Your task to perform on an android device: Open calendar and show me the third week of next month Image 0: 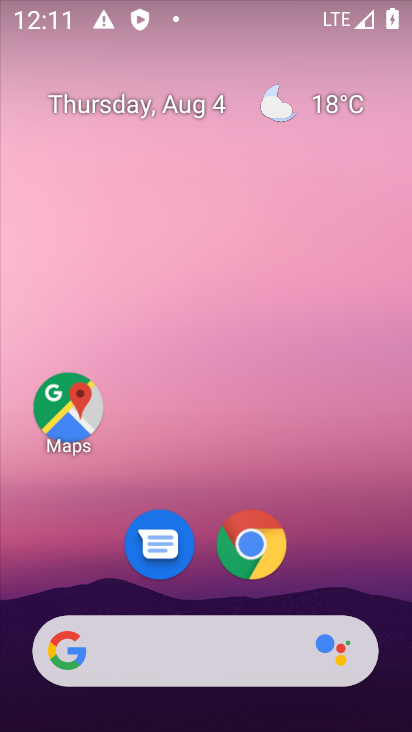
Step 0: drag from (389, 701) to (316, 177)
Your task to perform on an android device: Open calendar and show me the third week of next month Image 1: 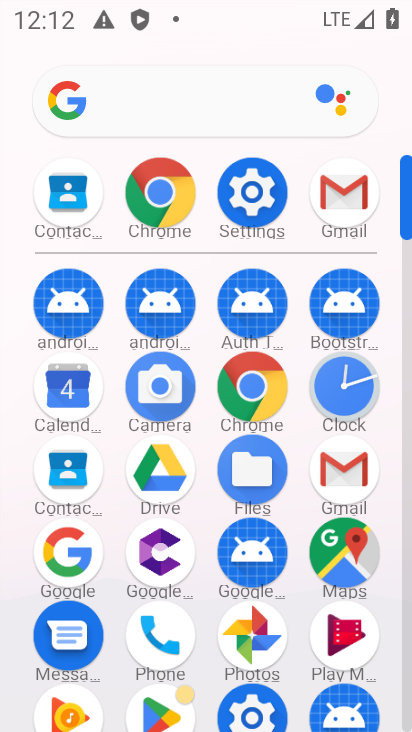
Step 1: click (72, 405)
Your task to perform on an android device: Open calendar and show me the third week of next month Image 2: 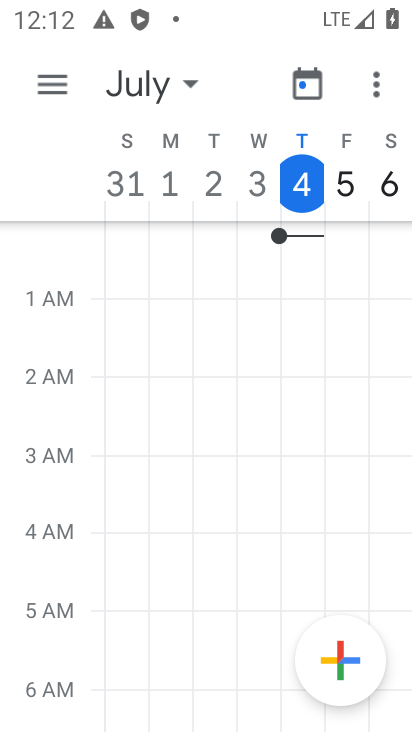
Step 2: click (197, 83)
Your task to perform on an android device: Open calendar and show me the third week of next month Image 3: 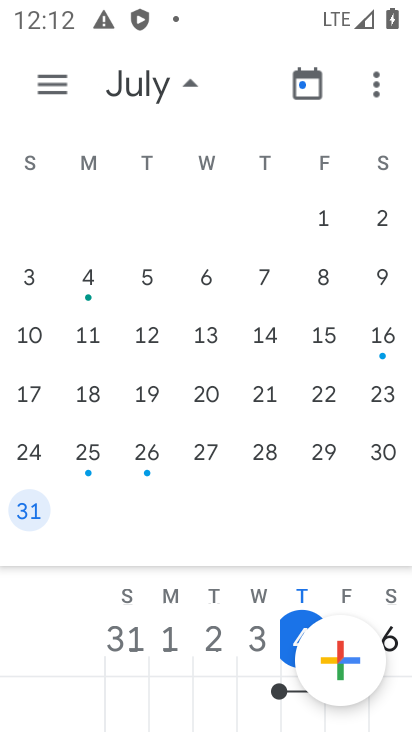
Step 3: drag from (389, 271) to (72, 293)
Your task to perform on an android device: Open calendar and show me the third week of next month Image 4: 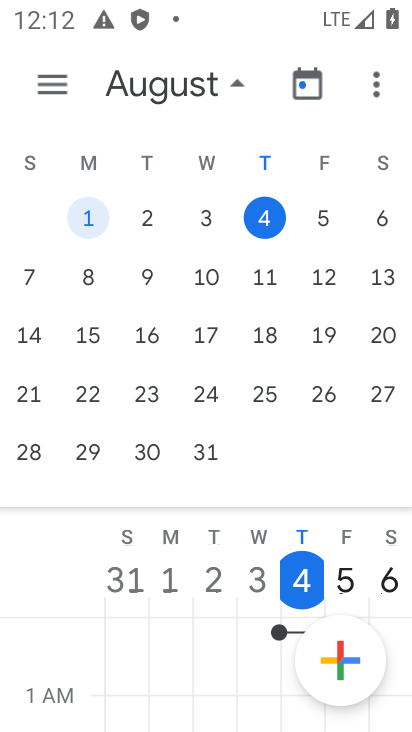
Step 4: drag from (397, 326) to (59, 328)
Your task to perform on an android device: Open calendar and show me the third week of next month Image 5: 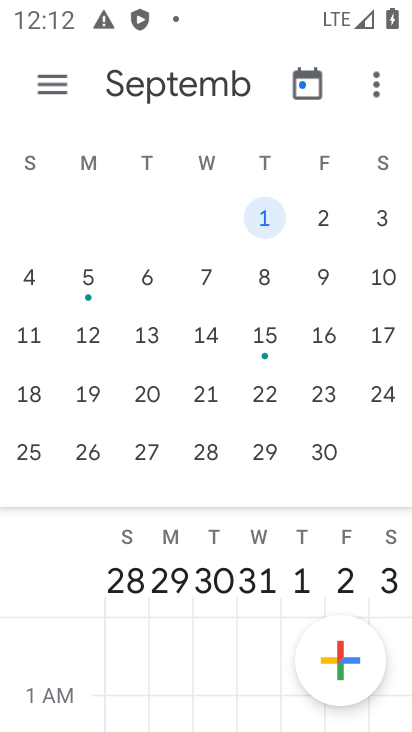
Step 5: click (264, 335)
Your task to perform on an android device: Open calendar and show me the third week of next month Image 6: 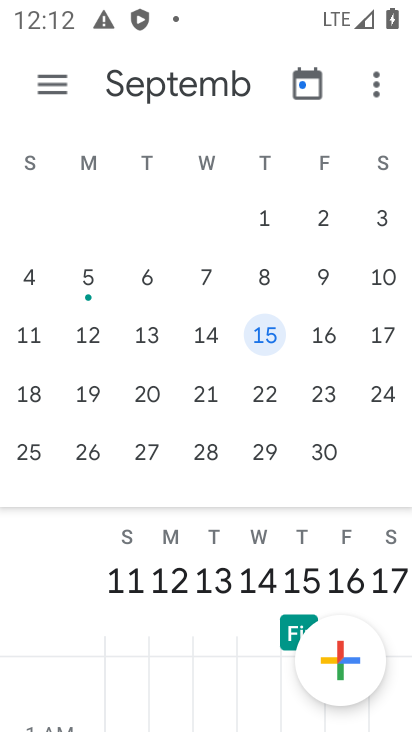
Step 6: click (54, 87)
Your task to perform on an android device: Open calendar and show me the third week of next month Image 7: 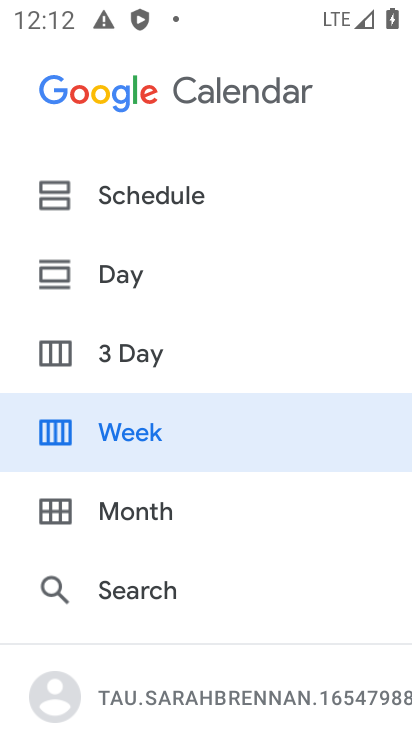
Step 7: click (121, 428)
Your task to perform on an android device: Open calendar and show me the third week of next month Image 8: 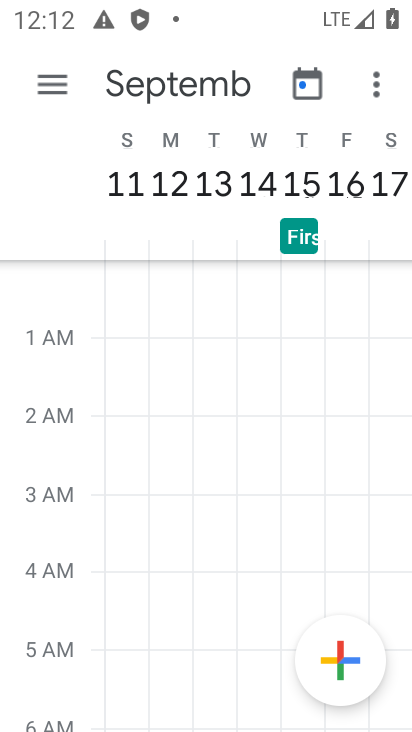
Step 8: task complete